Your task to perform on an android device: check google app version Image 0: 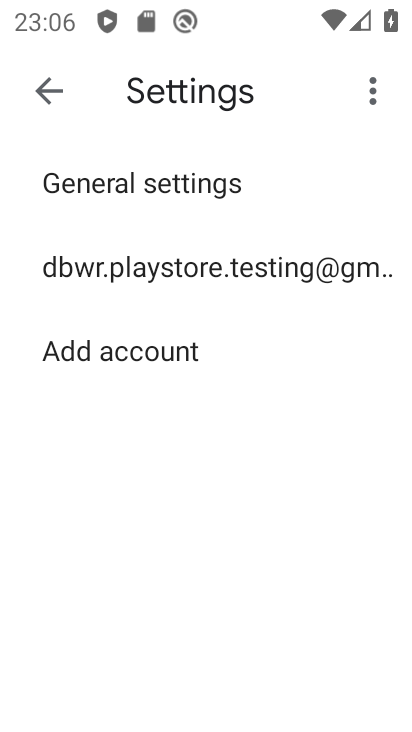
Step 0: press home button
Your task to perform on an android device: check google app version Image 1: 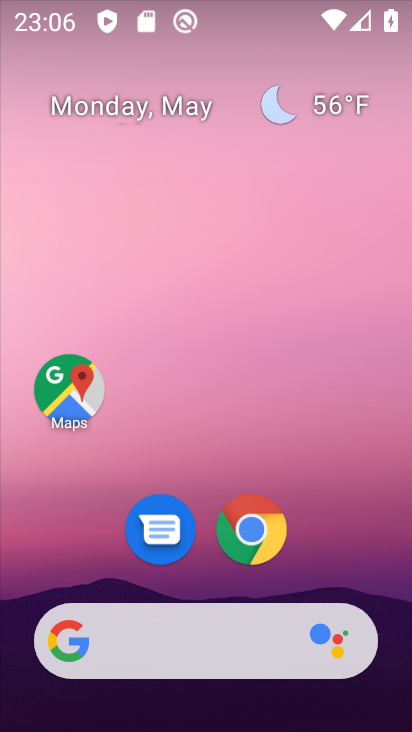
Step 1: drag from (340, 550) to (250, 119)
Your task to perform on an android device: check google app version Image 2: 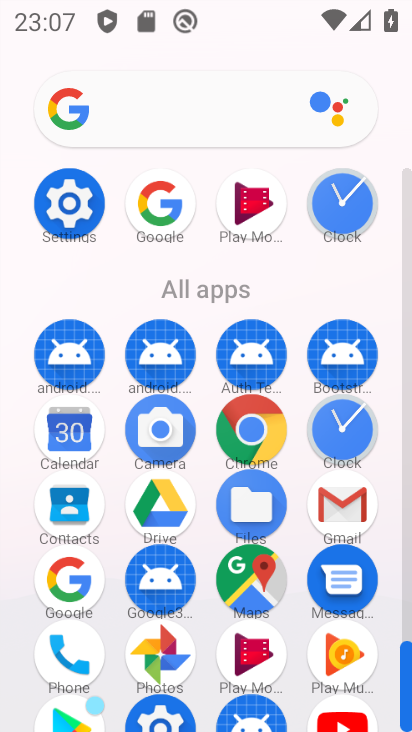
Step 2: click (155, 205)
Your task to perform on an android device: check google app version Image 3: 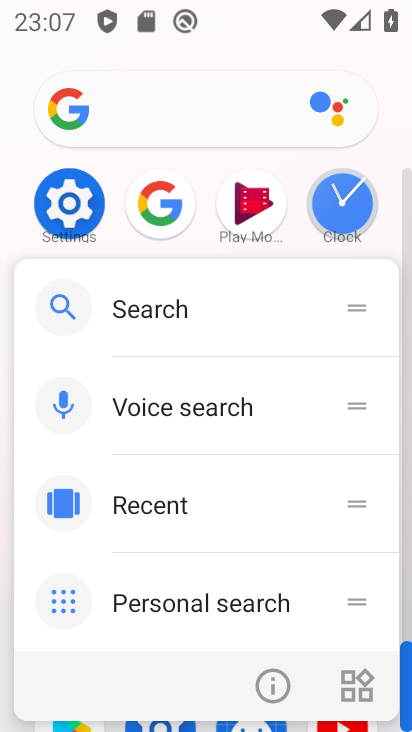
Step 3: click (273, 690)
Your task to perform on an android device: check google app version Image 4: 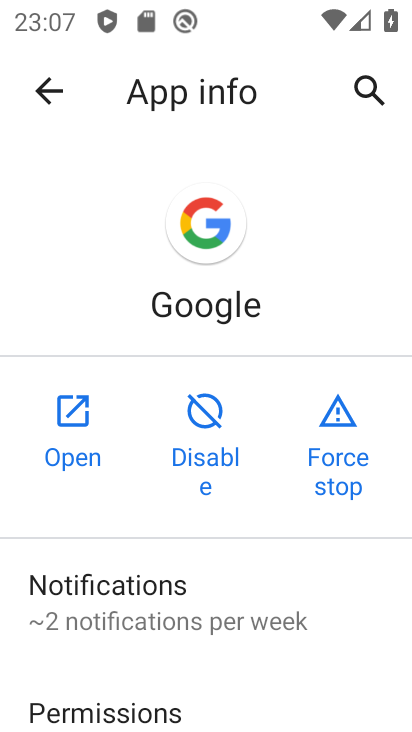
Step 4: drag from (182, 683) to (284, 432)
Your task to perform on an android device: check google app version Image 5: 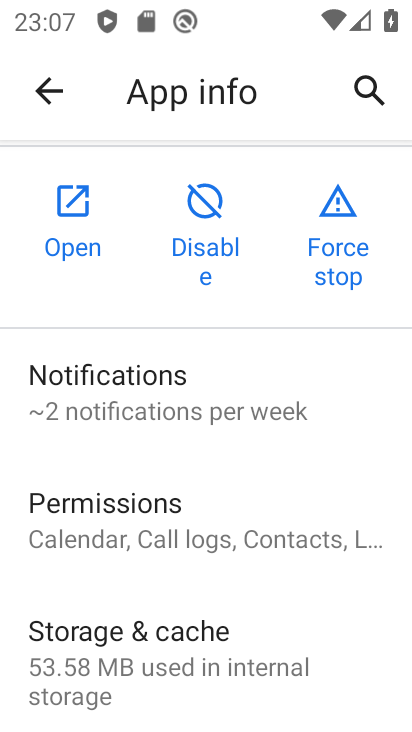
Step 5: drag from (239, 631) to (334, 481)
Your task to perform on an android device: check google app version Image 6: 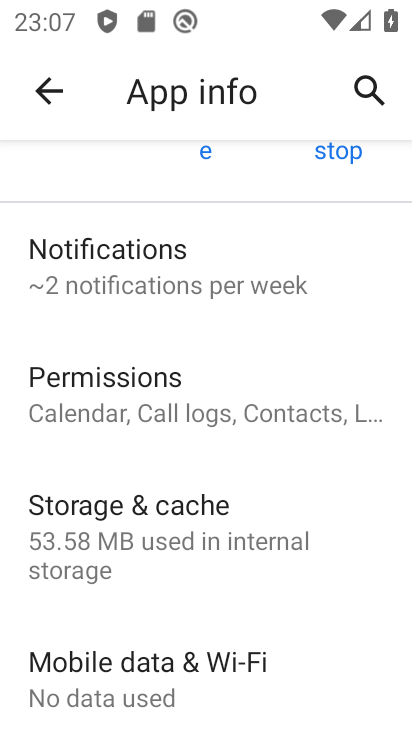
Step 6: drag from (183, 633) to (286, 451)
Your task to perform on an android device: check google app version Image 7: 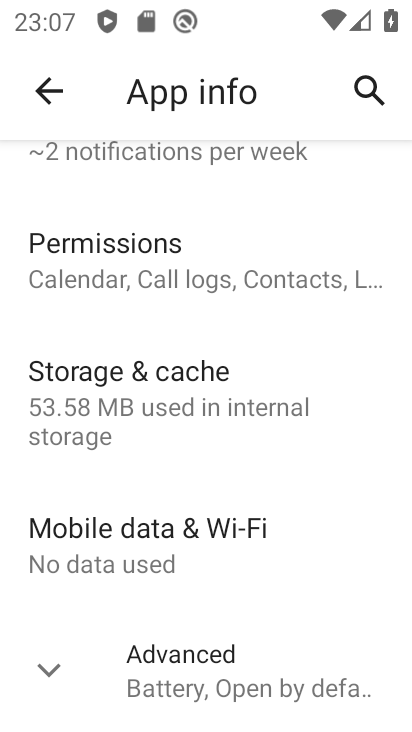
Step 7: click (191, 669)
Your task to perform on an android device: check google app version Image 8: 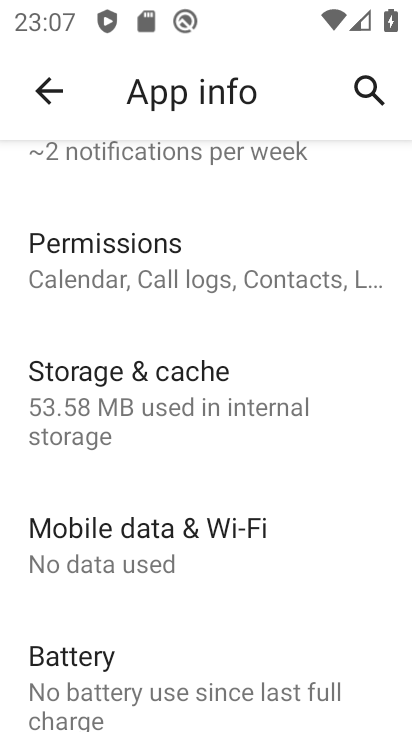
Step 8: task complete